Your task to perform on an android device: turn on location history Image 0: 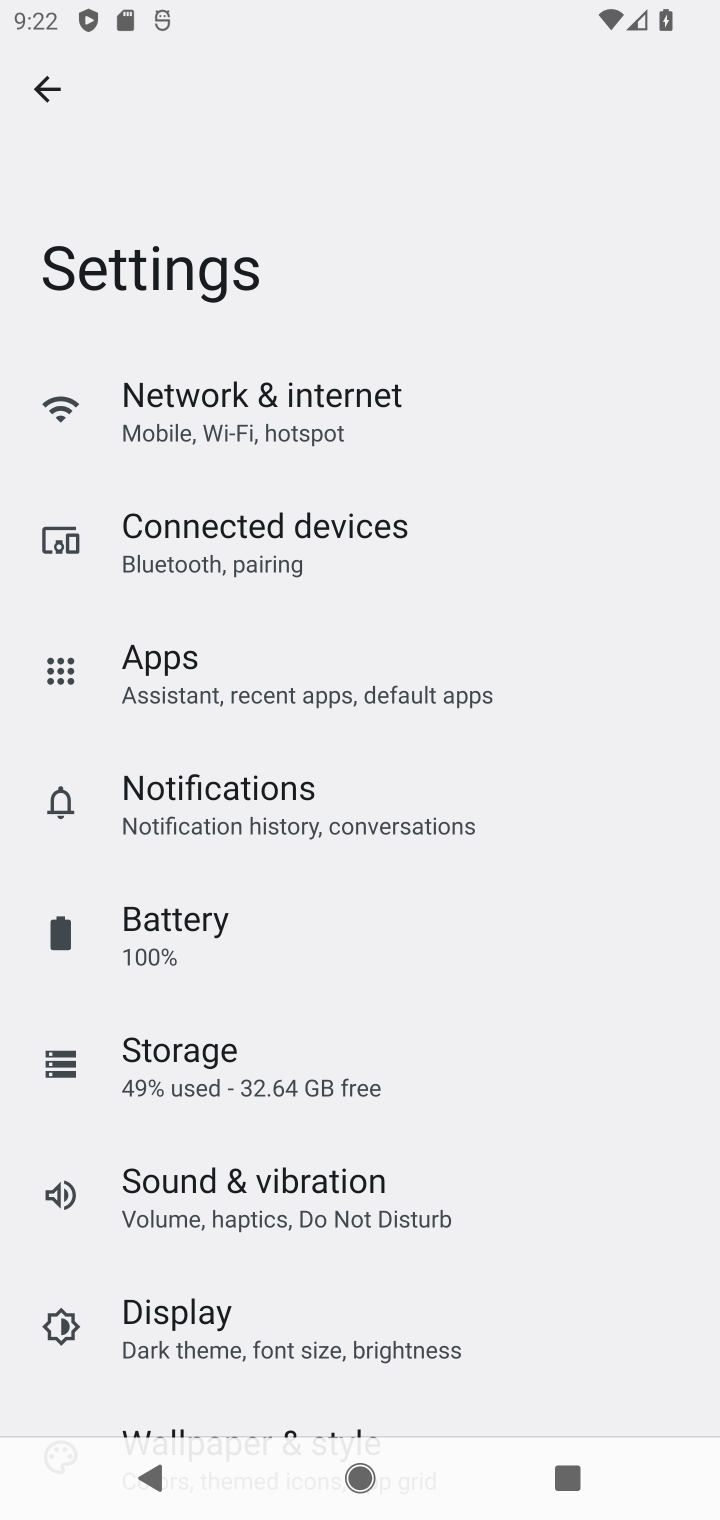
Step 0: press home button
Your task to perform on an android device: turn on location history Image 1: 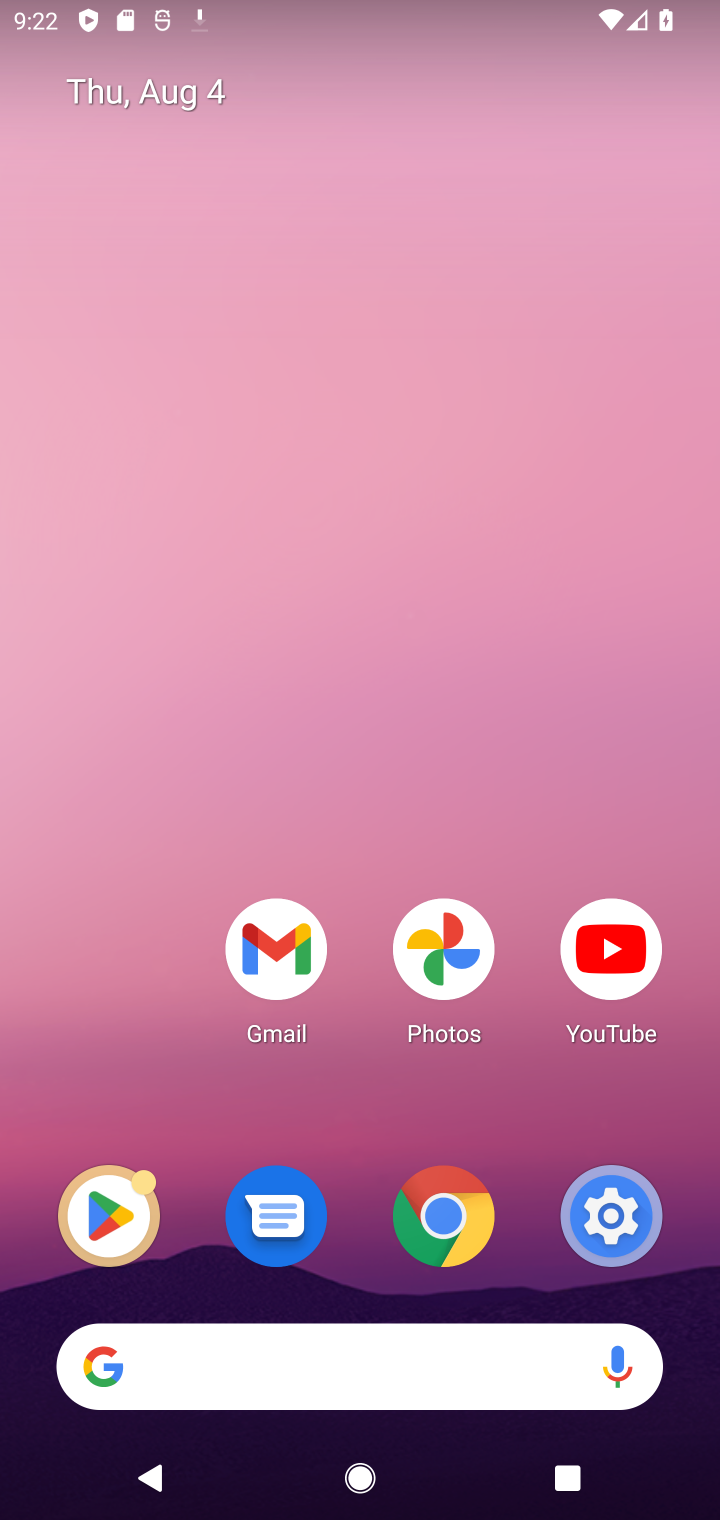
Step 1: drag from (278, 1375) to (439, 45)
Your task to perform on an android device: turn on location history Image 2: 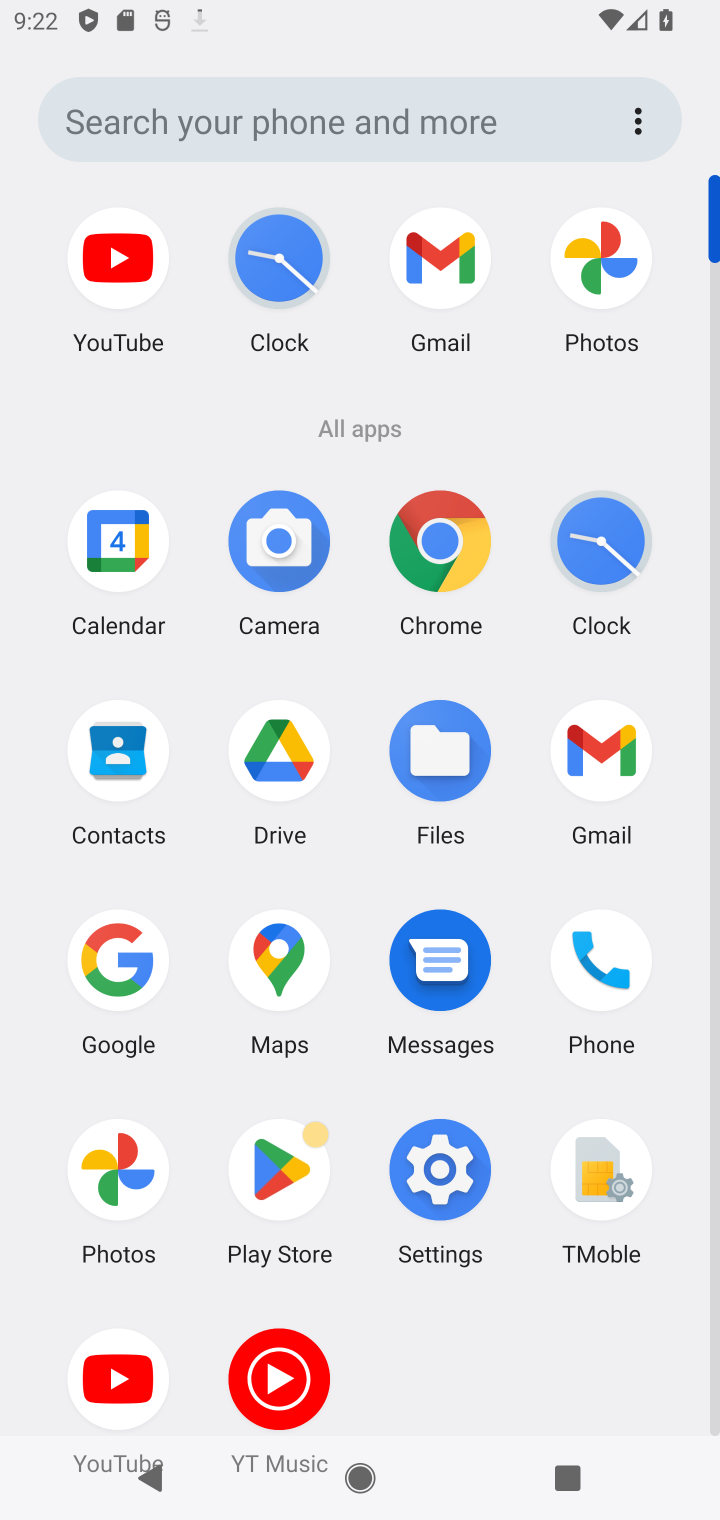
Step 2: click (434, 1165)
Your task to perform on an android device: turn on location history Image 3: 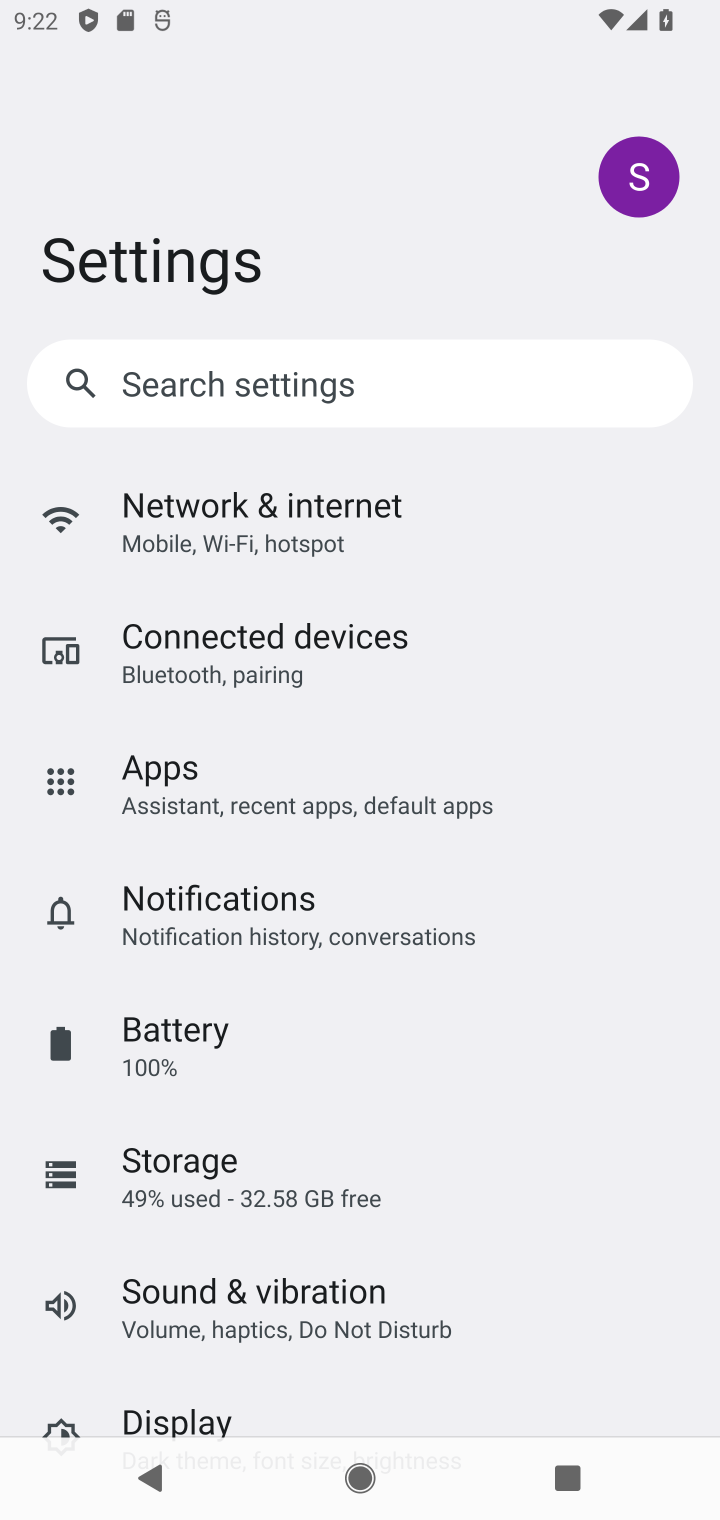
Step 3: drag from (250, 1351) to (401, 1060)
Your task to perform on an android device: turn on location history Image 4: 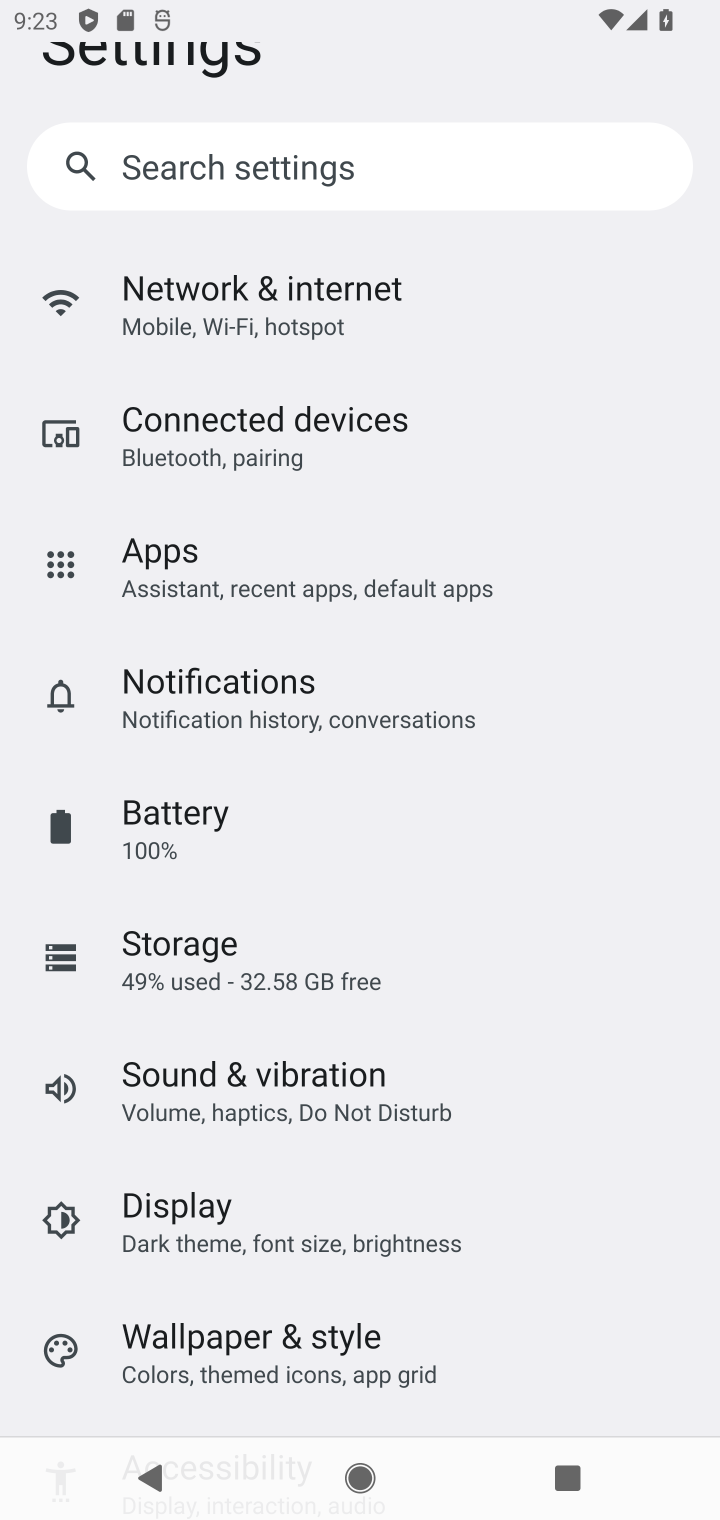
Step 4: drag from (268, 1285) to (410, 1033)
Your task to perform on an android device: turn on location history Image 5: 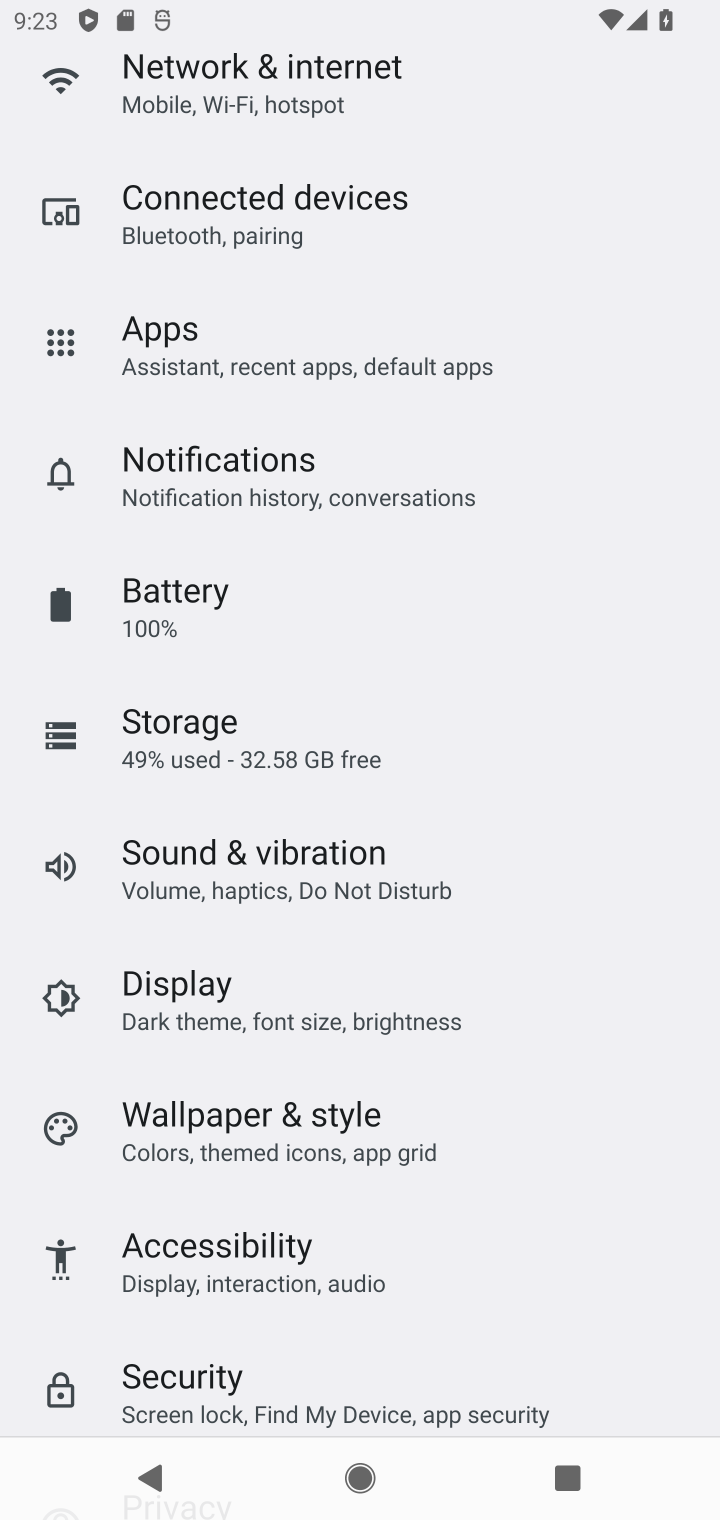
Step 5: drag from (208, 1335) to (400, 937)
Your task to perform on an android device: turn on location history Image 6: 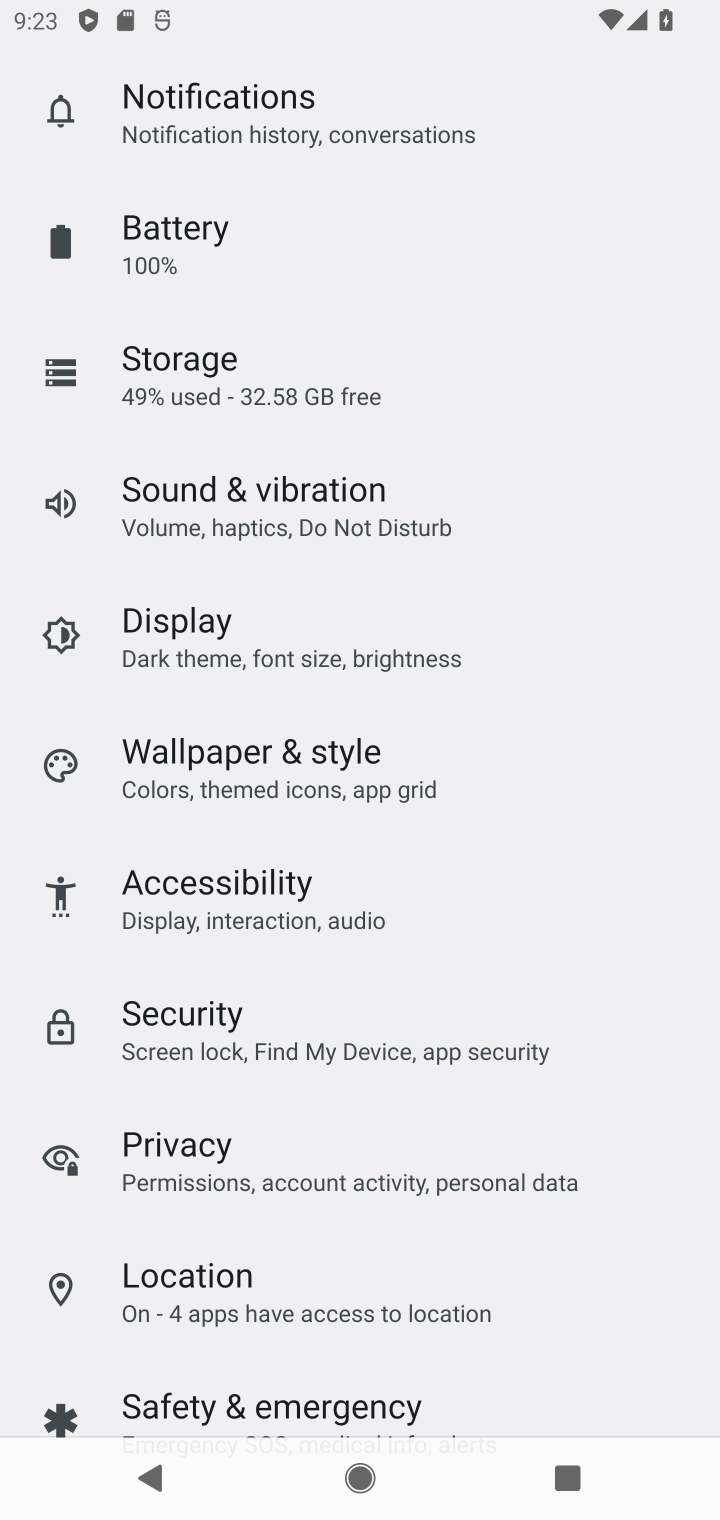
Step 6: click (188, 1290)
Your task to perform on an android device: turn on location history Image 7: 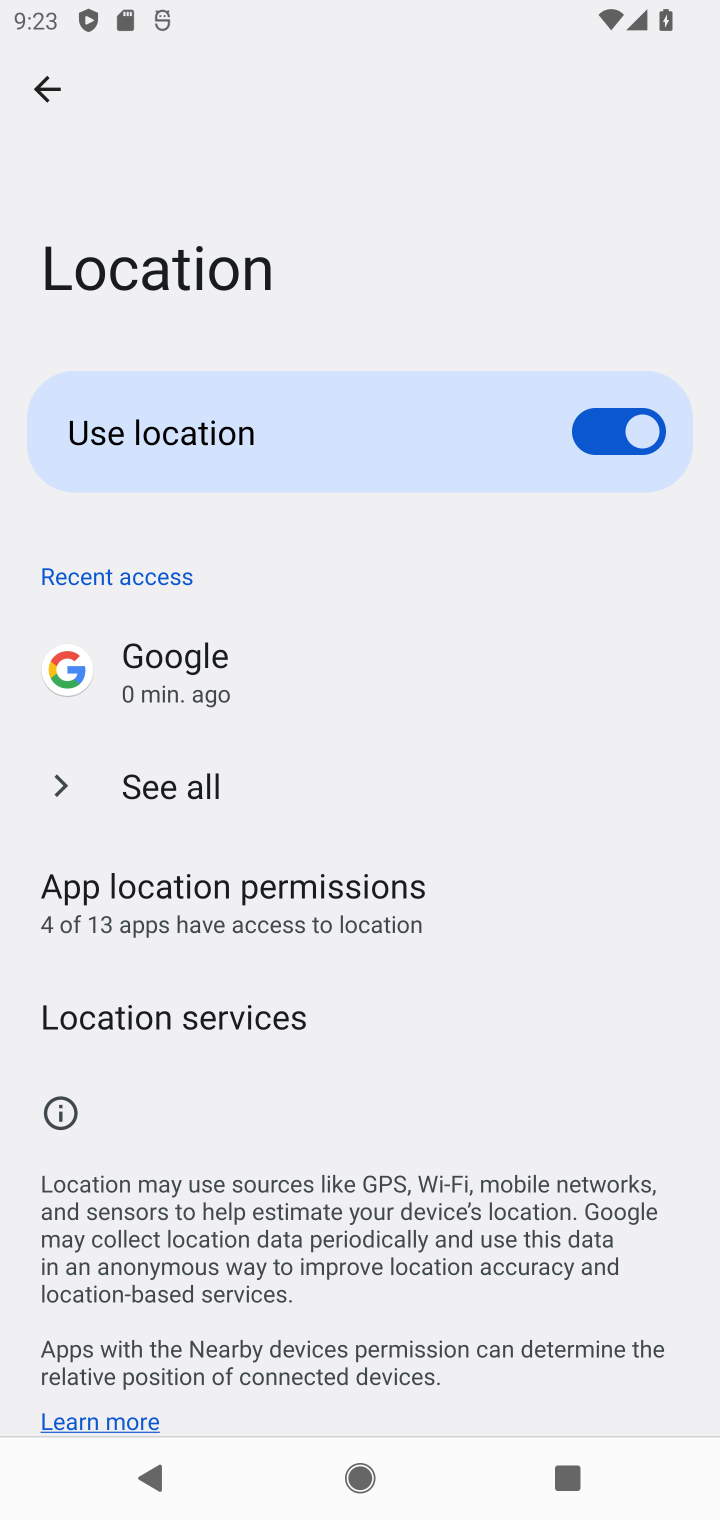
Step 7: click (260, 1024)
Your task to perform on an android device: turn on location history Image 8: 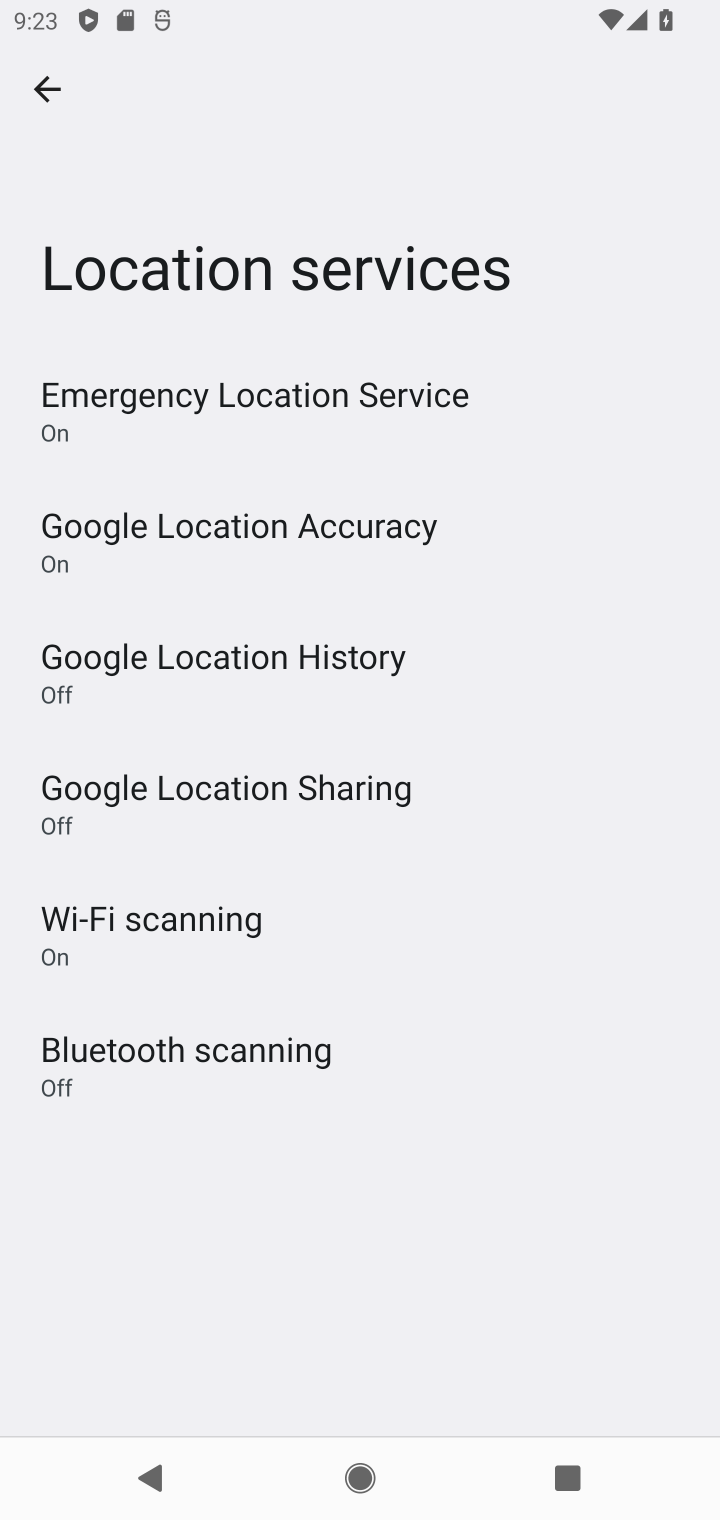
Step 8: click (303, 664)
Your task to perform on an android device: turn on location history Image 9: 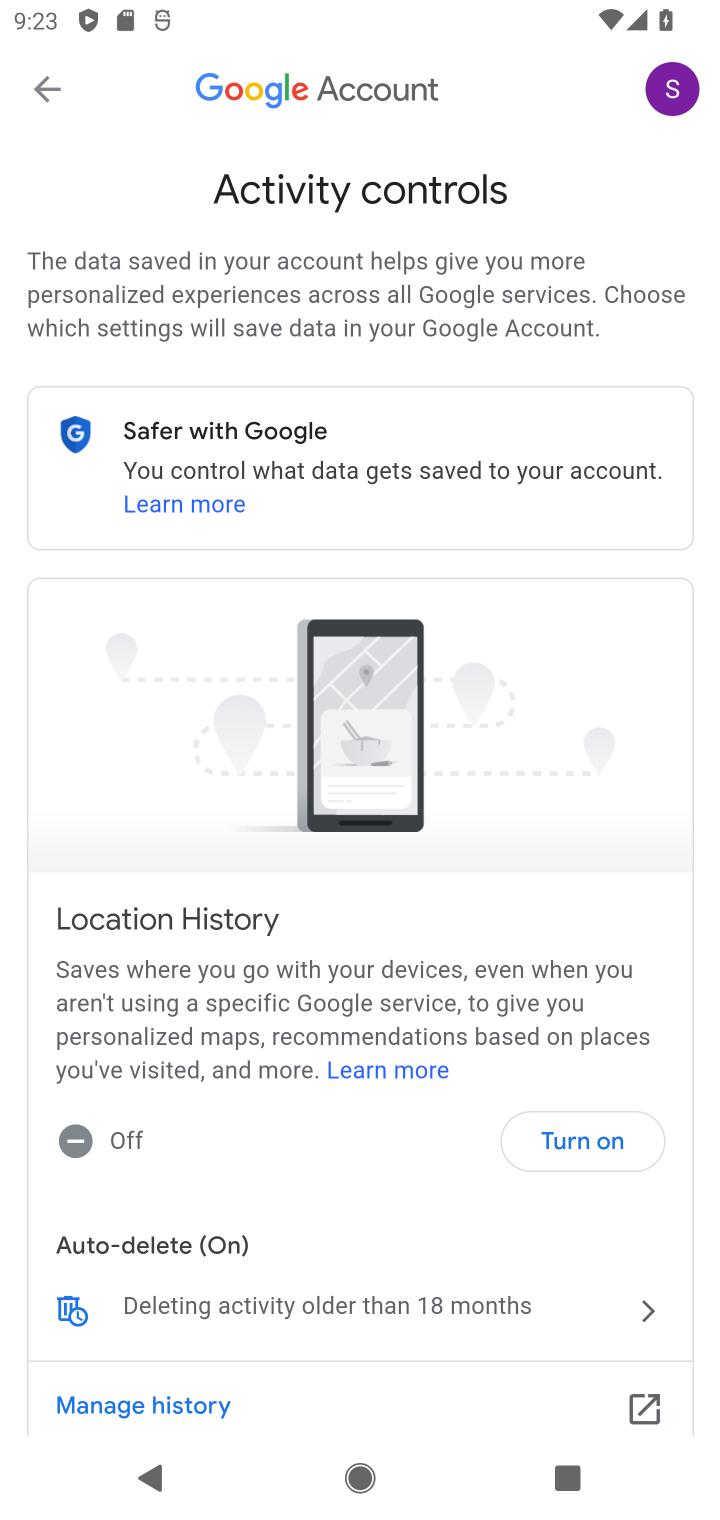
Step 9: click (591, 1151)
Your task to perform on an android device: turn on location history Image 10: 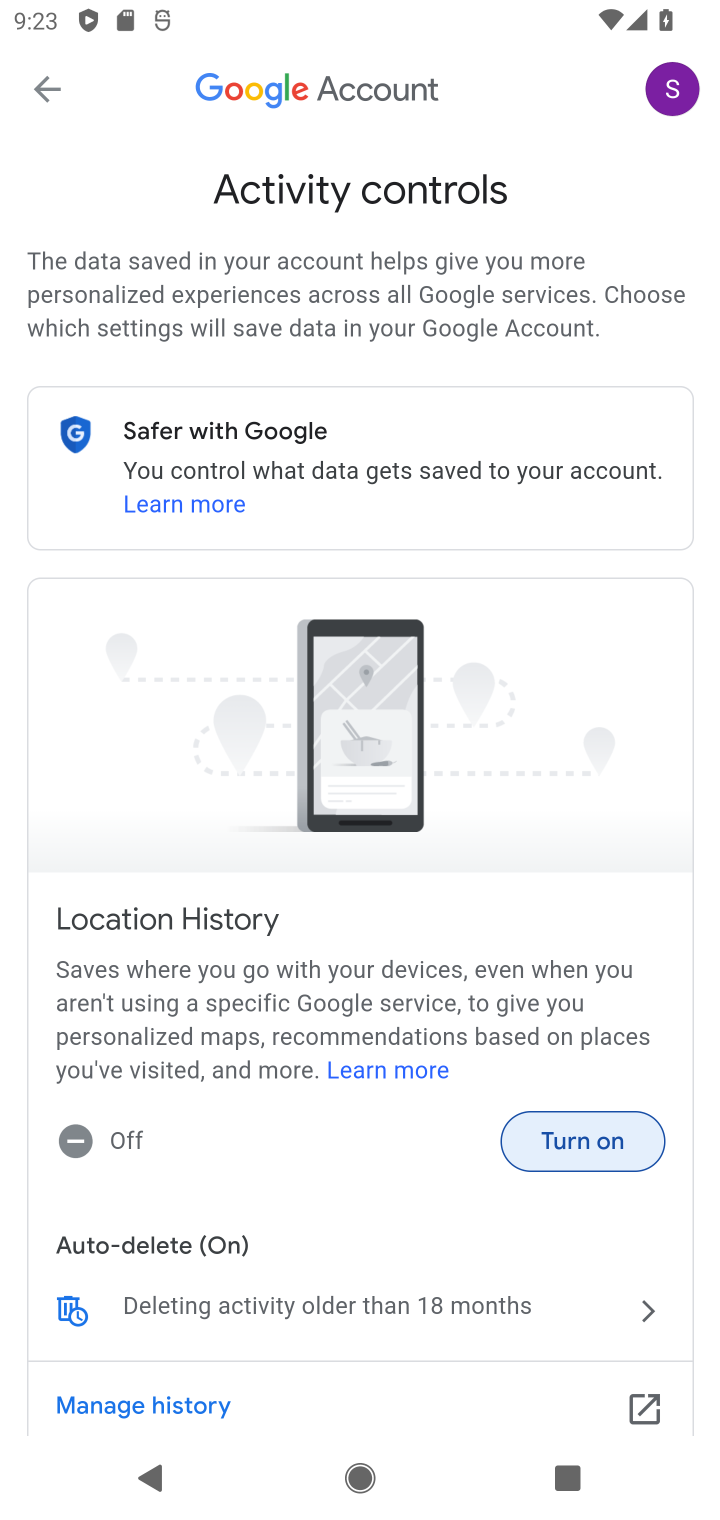
Step 10: click (591, 1151)
Your task to perform on an android device: turn on location history Image 11: 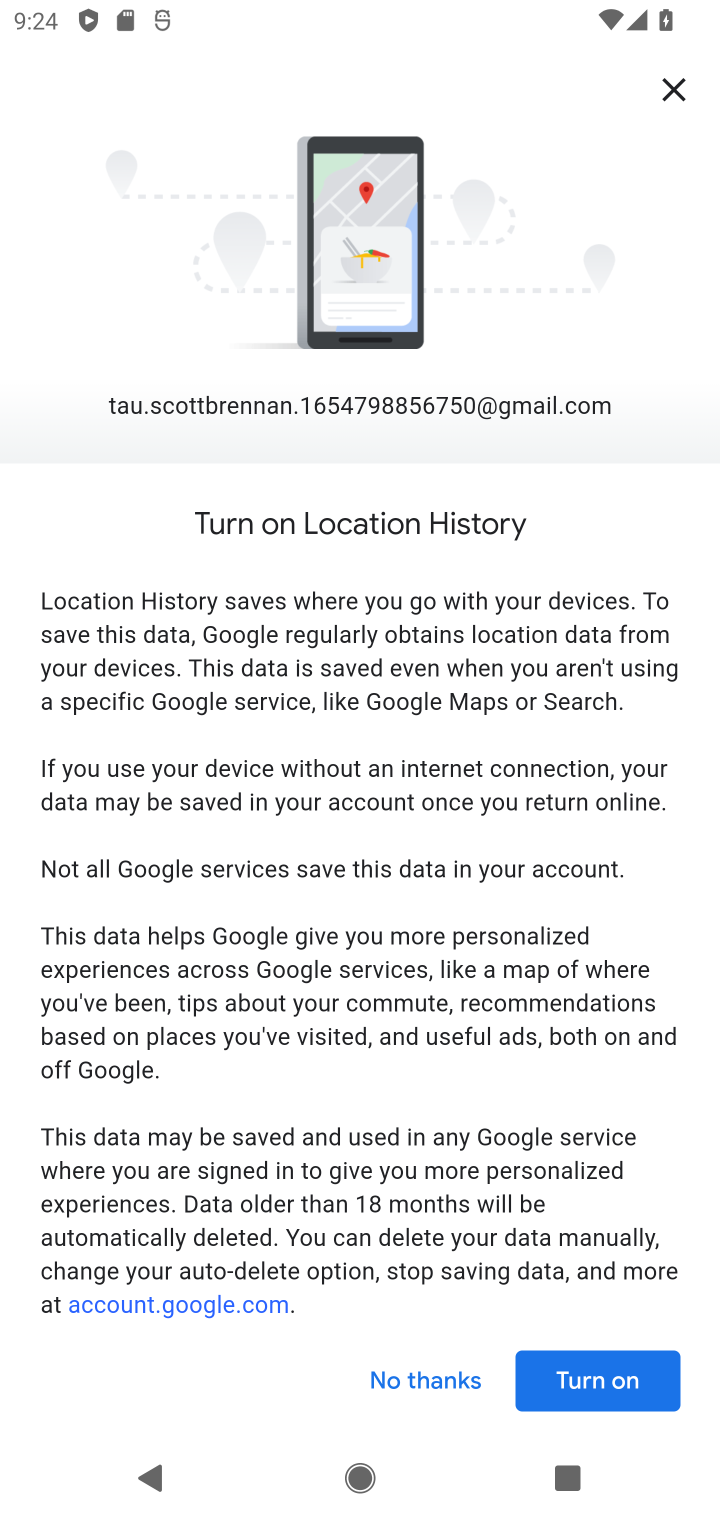
Step 11: click (613, 1377)
Your task to perform on an android device: turn on location history Image 12: 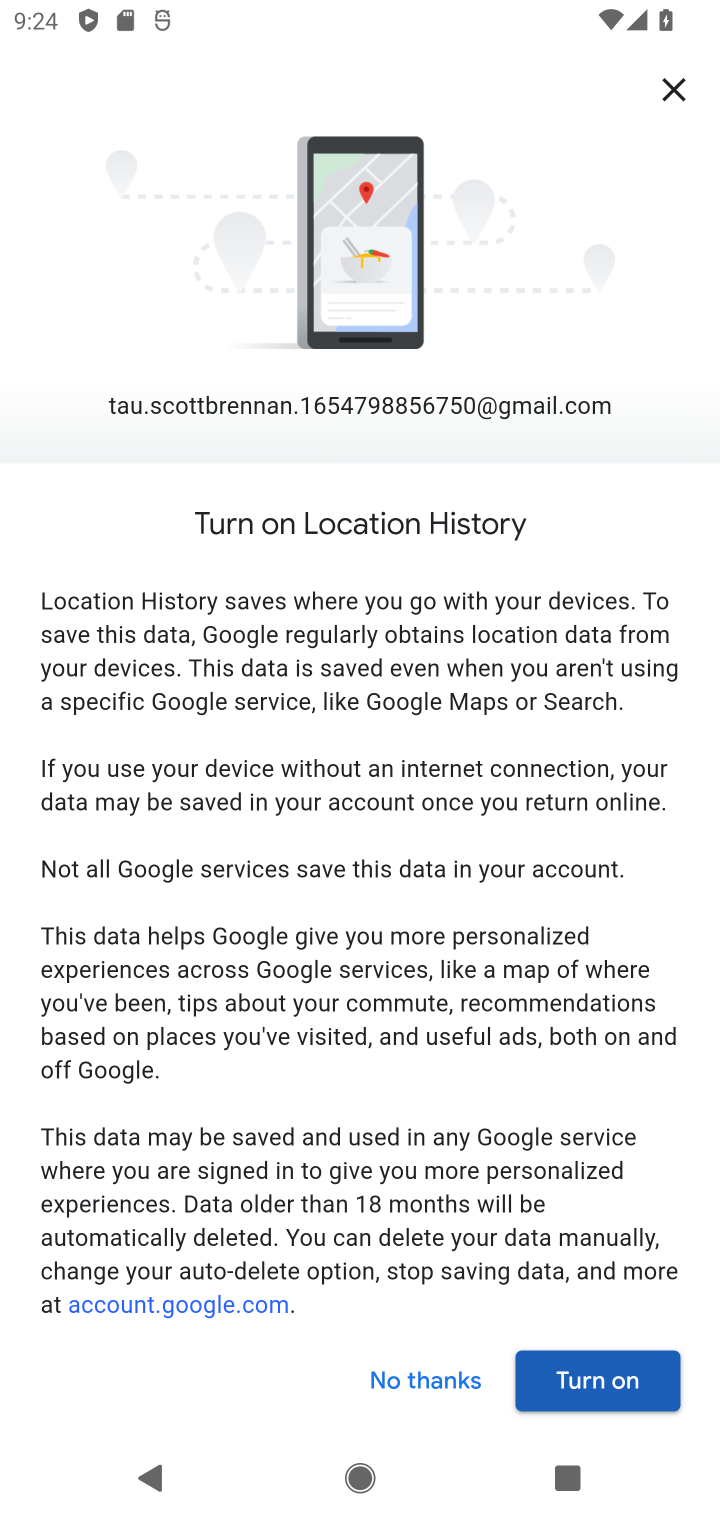
Step 12: click (615, 1392)
Your task to perform on an android device: turn on location history Image 13: 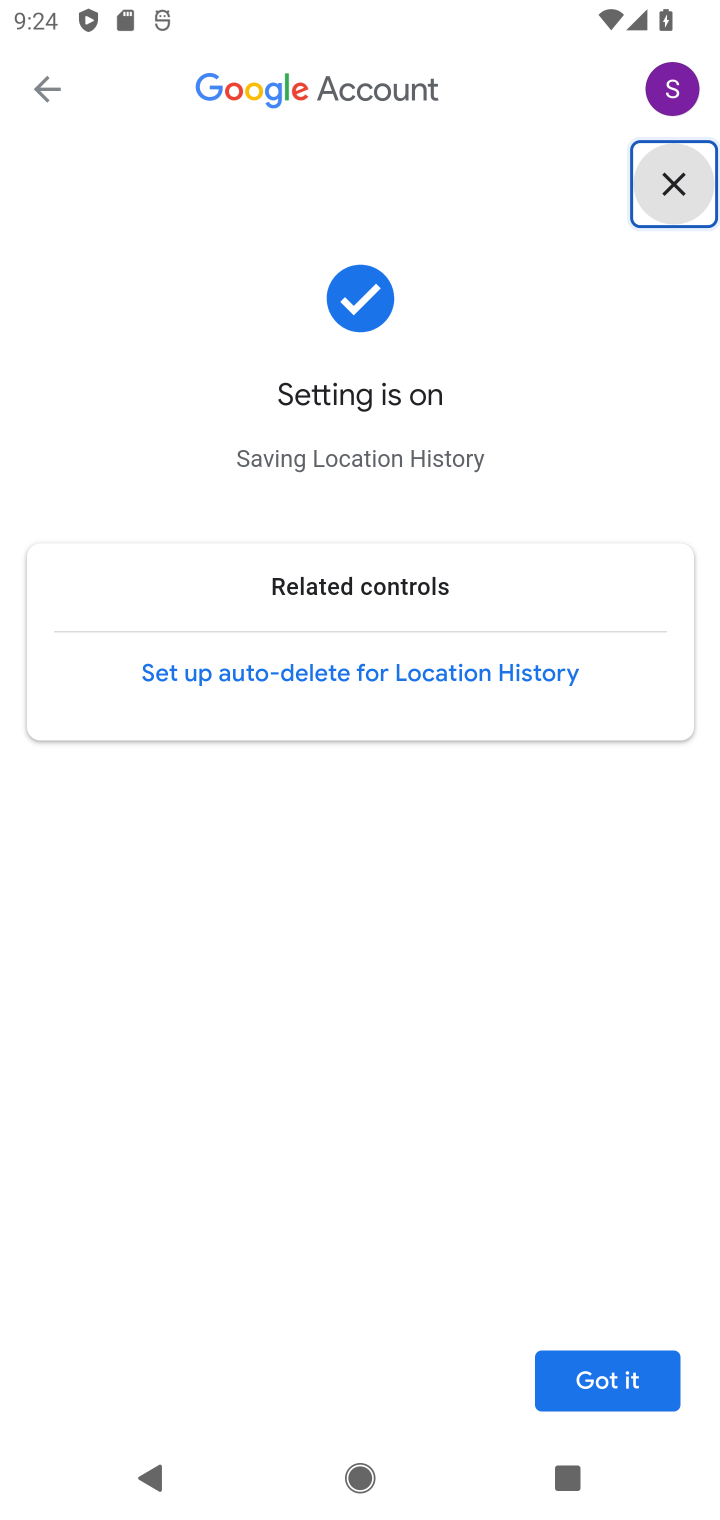
Step 13: click (625, 1391)
Your task to perform on an android device: turn on location history Image 14: 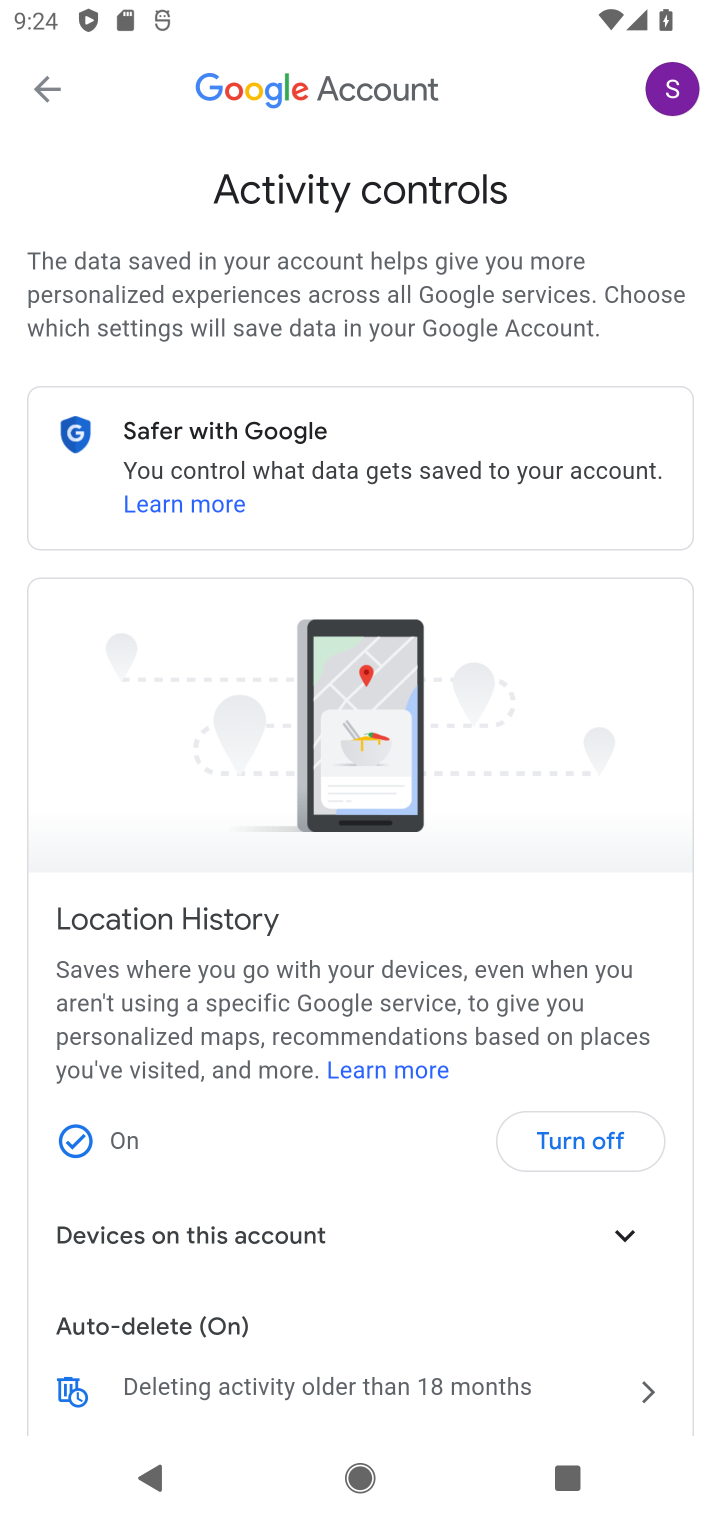
Step 14: task complete